Your task to perform on an android device: delete location history Image 0: 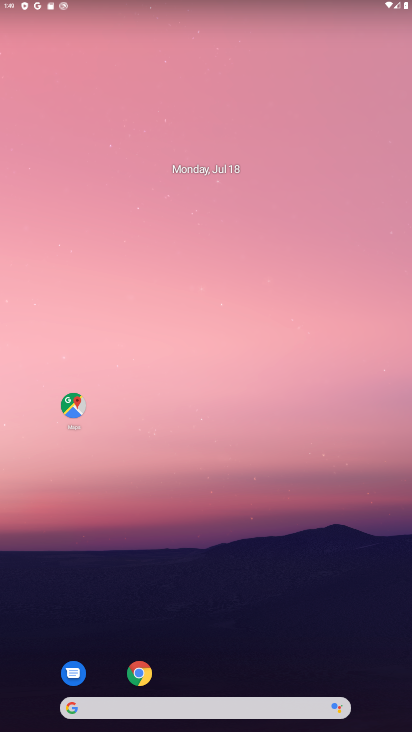
Step 0: click (72, 406)
Your task to perform on an android device: delete location history Image 1: 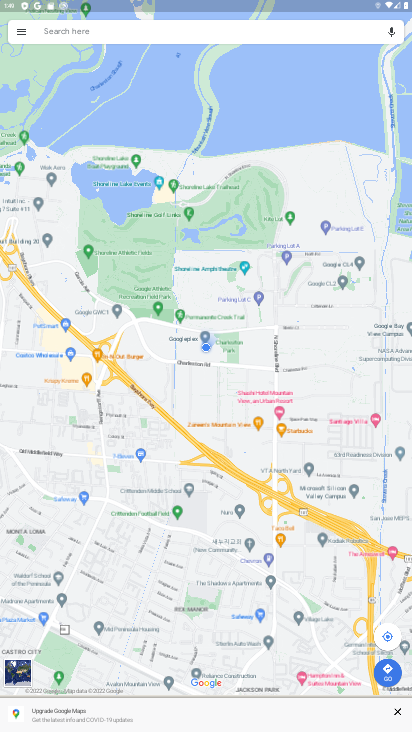
Step 1: click (21, 31)
Your task to perform on an android device: delete location history Image 2: 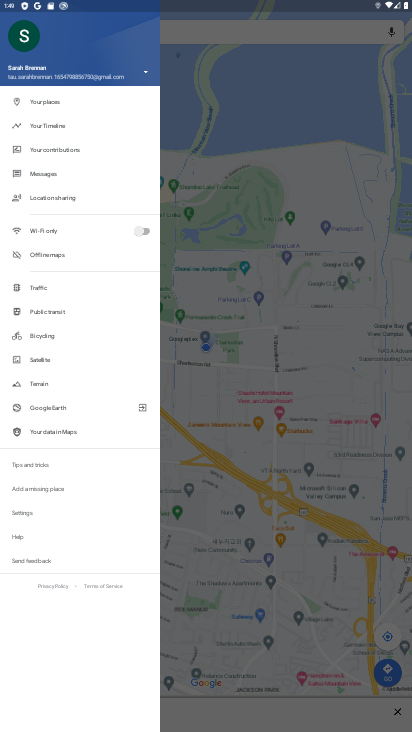
Step 2: click (24, 511)
Your task to perform on an android device: delete location history Image 3: 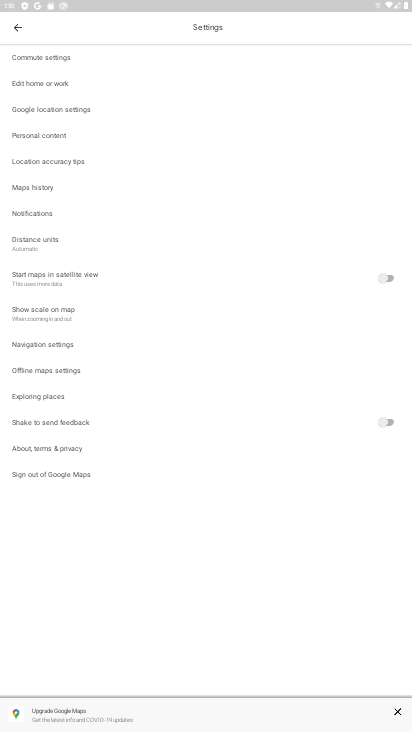
Step 3: click (38, 138)
Your task to perform on an android device: delete location history Image 4: 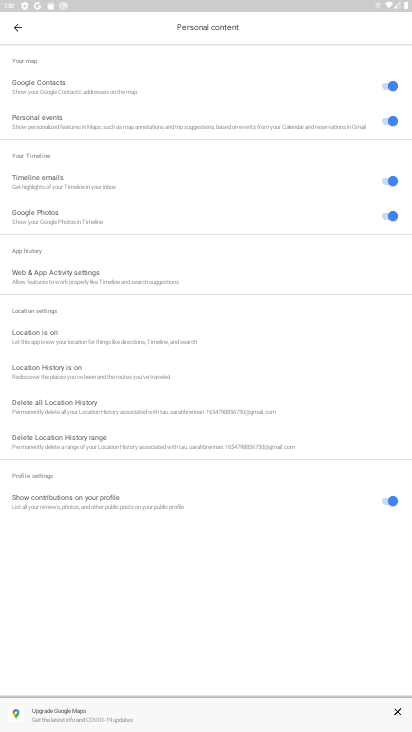
Step 4: click (106, 409)
Your task to perform on an android device: delete location history Image 5: 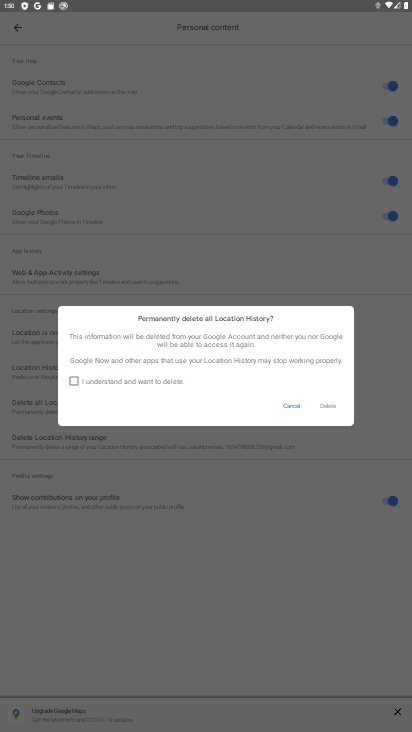
Step 5: click (73, 381)
Your task to perform on an android device: delete location history Image 6: 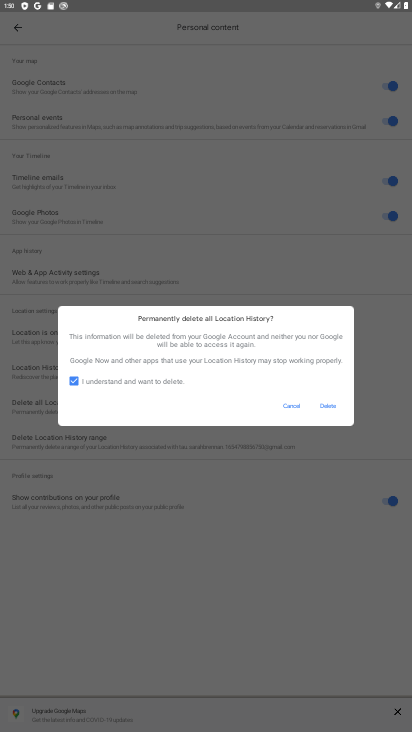
Step 6: click (331, 404)
Your task to perform on an android device: delete location history Image 7: 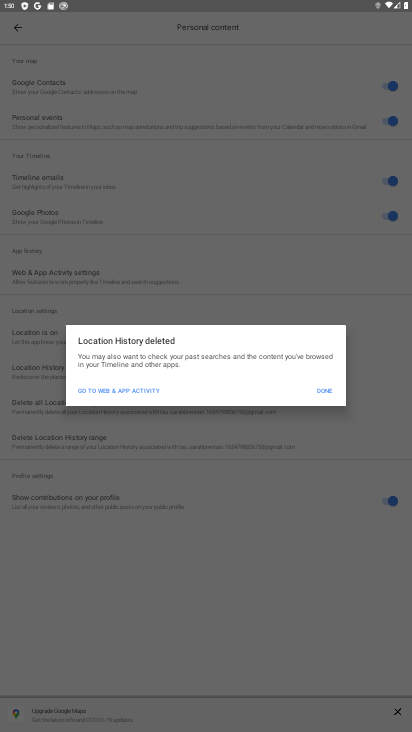
Step 7: click (332, 389)
Your task to perform on an android device: delete location history Image 8: 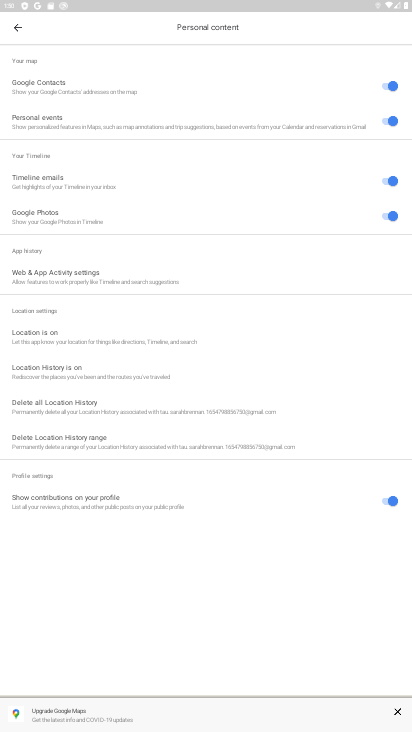
Step 8: task complete